Your task to perform on an android device: toggle data saver in the chrome app Image 0: 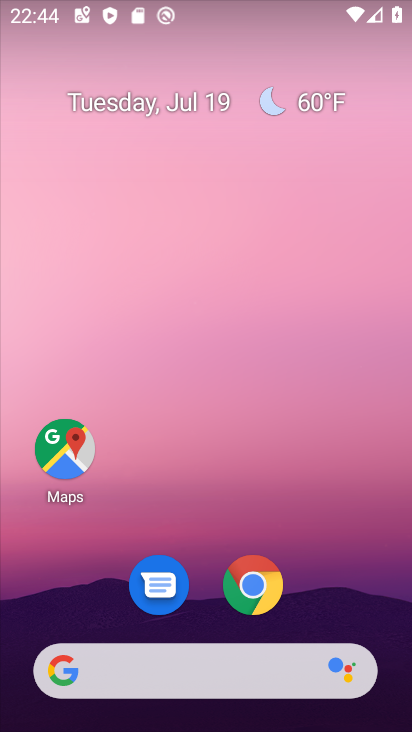
Step 0: click (243, 582)
Your task to perform on an android device: toggle data saver in the chrome app Image 1: 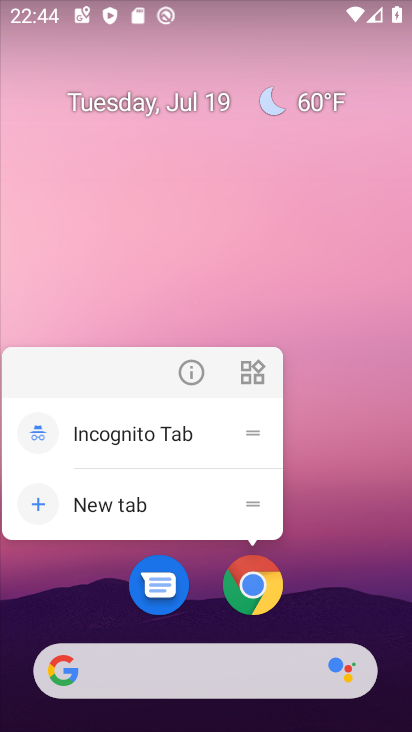
Step 1: click (243, 582)
Your task to perform on an android device: toggle data saver in the chrome app Image 2: 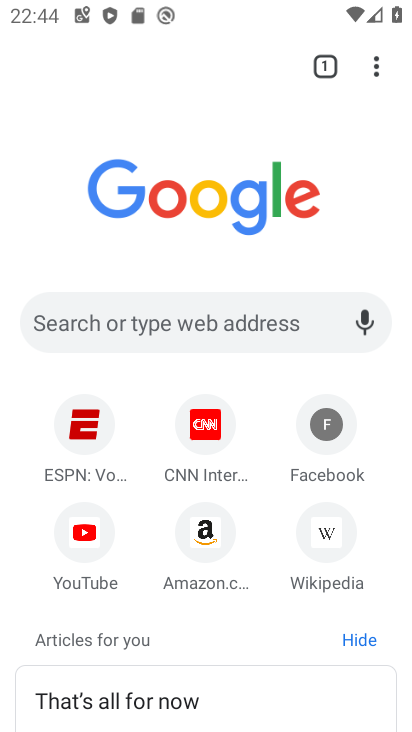
Step 2: click (380, 70)
Your task to perform on an android device: toggle data saver in the chrome app Image 3: 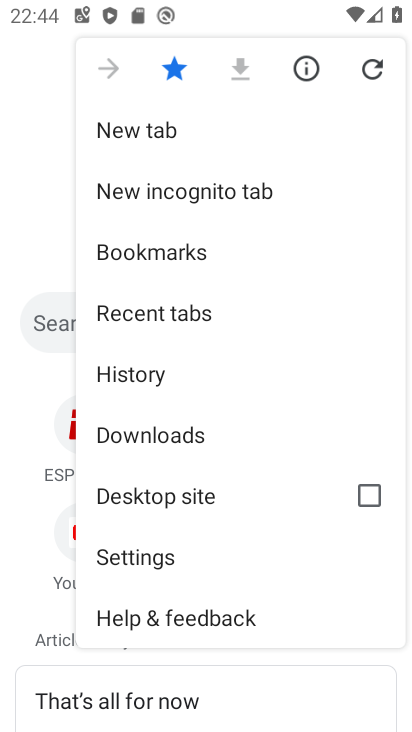
Step 3: click (166, 549)
Your task to perform on an android device: toggle data saver in the chrome app Image 4: 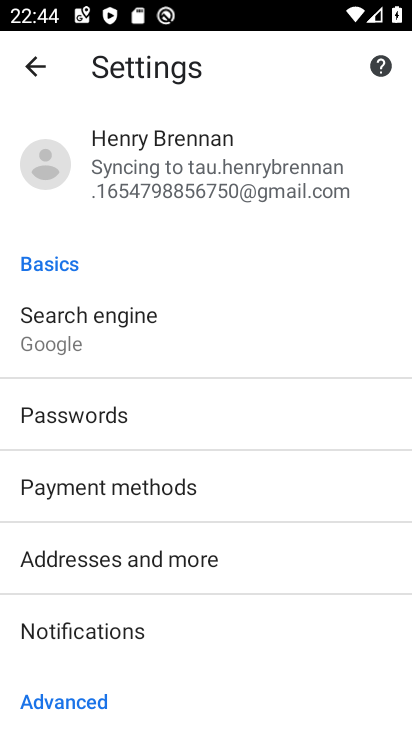
Step 4: drag from (270, 562) to (300, 118)
Your task to perform on an android device: toggle data saver in the chrome app Image 5: 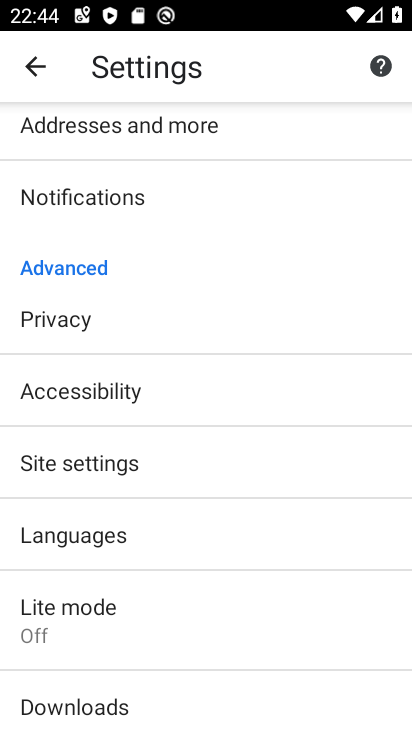
Step 5: click (109, 627)
Your task to perform on an android device: toggle data saver in the chrome app Image 6: 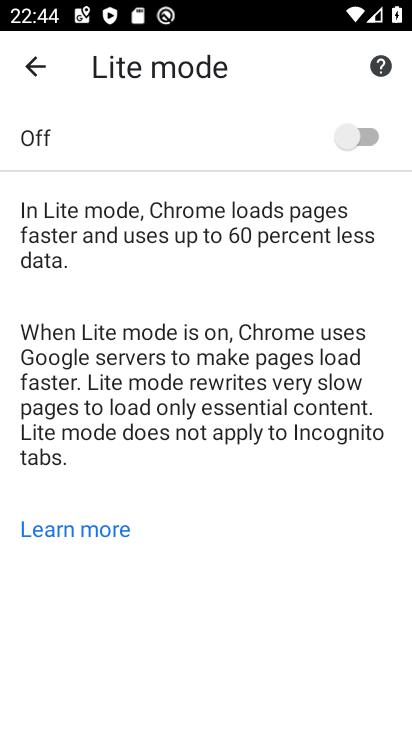
Step 6: click (364, 134)
Your task to perform on an android device: toggle data saver in the chrome app Image 7: 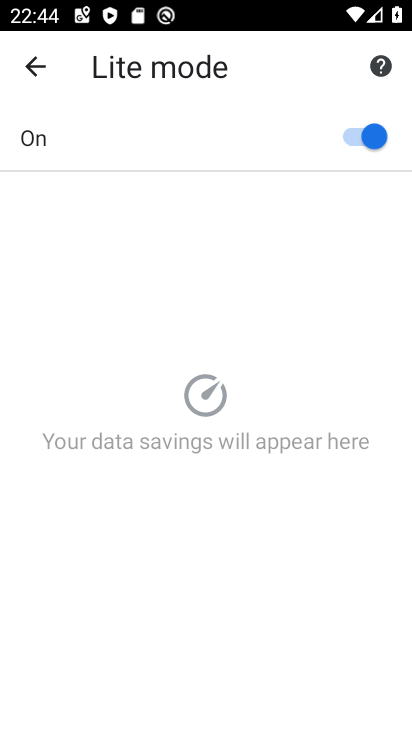
Step 7: task complete